Your task to perform on an android device: Show me productivity apps on the Play Store Image 0: 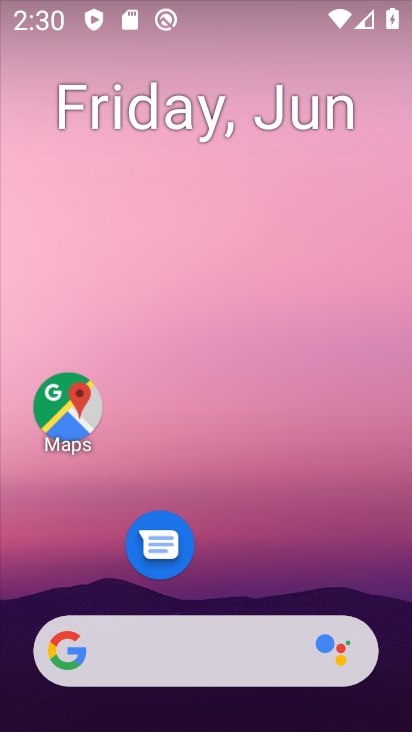
Step 0: drag from (239, 578) to (254, 243)
Your task to perform on an android device: Show me productivity apps on the Play Store Image 1: 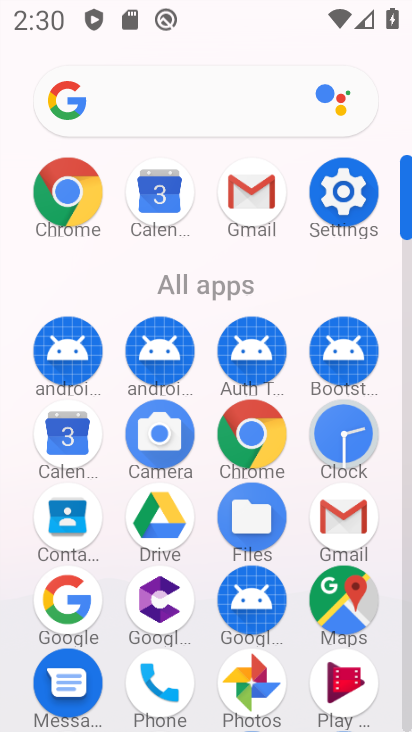
Step 1: drag from (212, 619) to (239, 292)
Your task to perform on an android device: Show me productivity apps on the Play Store Image 2: 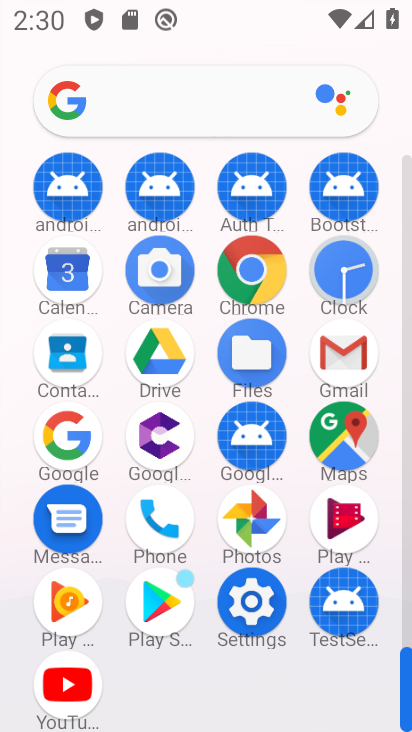
Step 2: click (156, 616)
Your task to perform on an android device: Show me productivity apps on the Play Store Image 3: 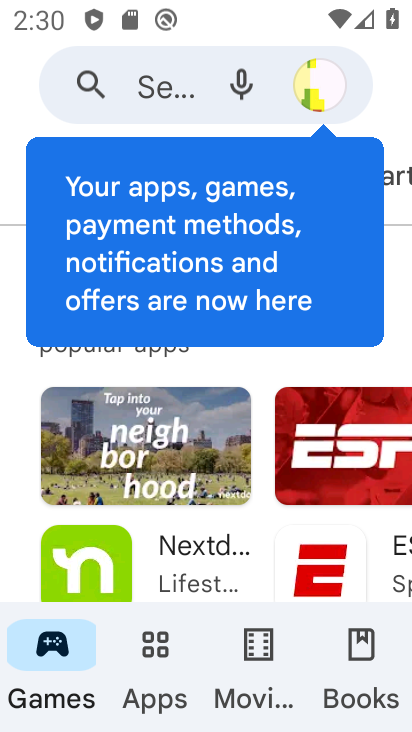
Step 3: click (168, 663)
Your task to perform on an android device: Show me productivity apps on the Play Store Image 4: 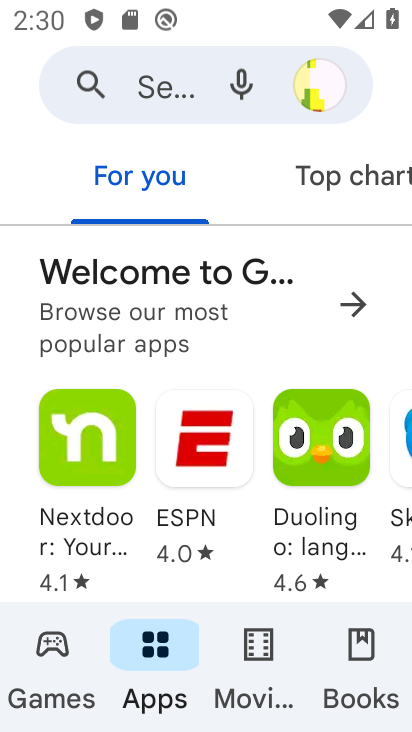
Step 4: drag from (368, 172) to (95, 159)
Your task to perform on an android device: Show me productivity apps on the Play Store Image 5: 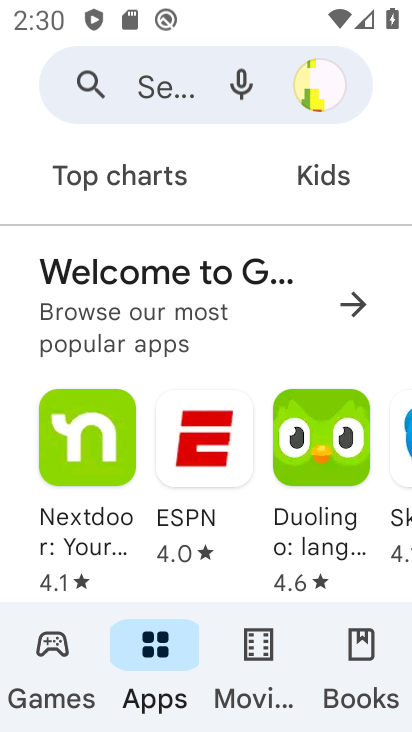
Step 5: drag from (334, 205) to (13, 184)
Your task to perform on an android device: Show me productivity apps on the Play Store Image 6: 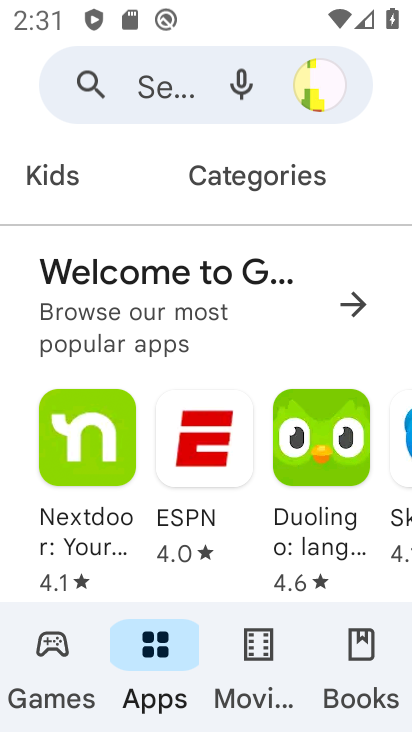
Step 6: click (257, 183)
Your task to perform on an android device: Show me productivity apps on the Play Store Image 7: 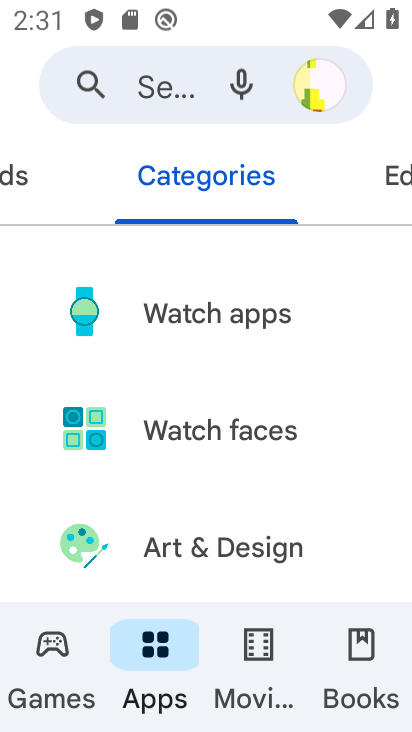
Step 7: drag from (210, 520) to (231, 260)
Your task to perform on an android device: Show me productivity apps on the Play Store Image 8: 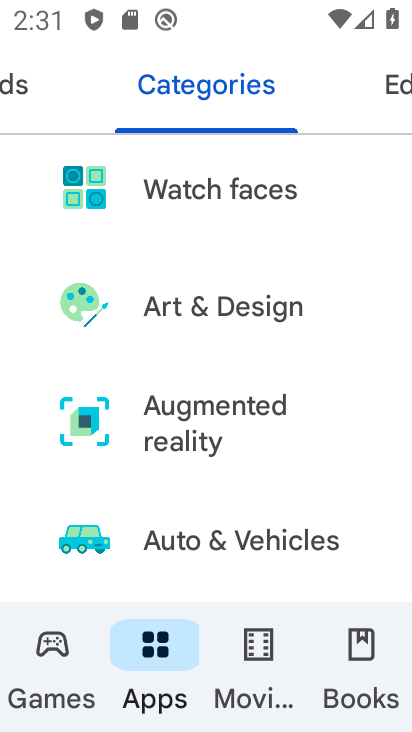
Step 8: drag from (236, 569) to (266, 227)
Your task to perform on an android device: Show me productivity apps on the Play Store Image 9: 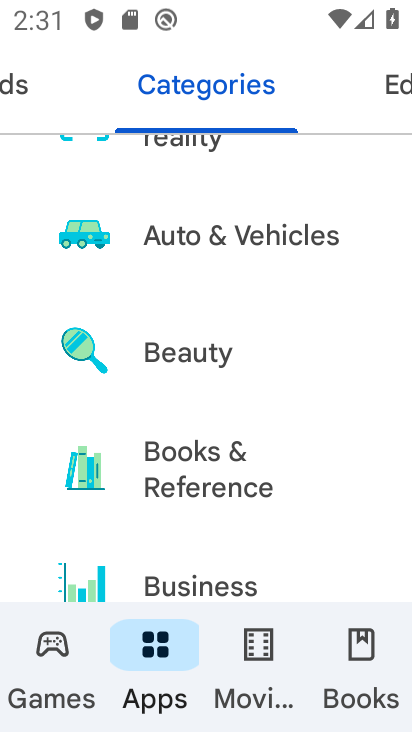
Step 9: drag from (241, 586) to (287, 92)
Your task to perform on an android device: Show me productivity apps on the Play Store Image 10: 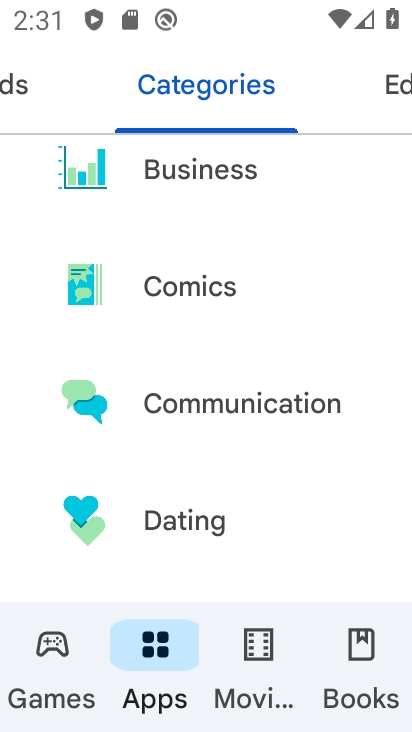
Step 10: drag from (235, 473) to (252, 19)
Your task to perform on an android device: Show me productivity apps on the Play Store Image 11: 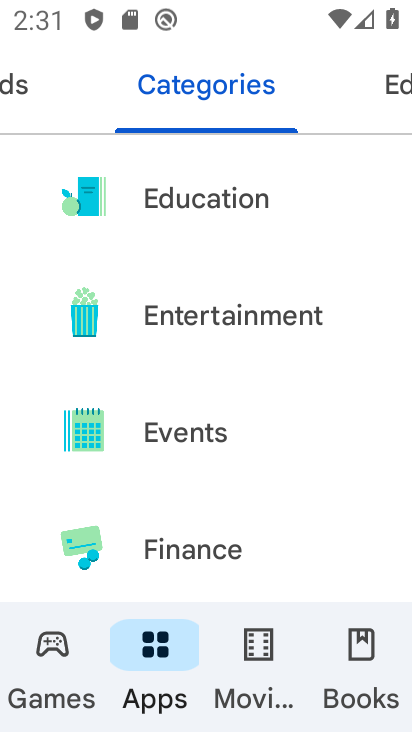
Step 11: drag from (215, 496) to (224, 1)
Your task to perform on an android device: Show me productivity apps on the Play Store Image 12: 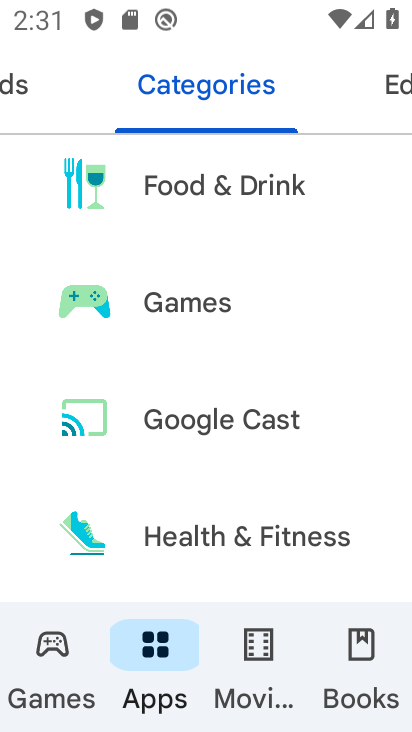
Step 12: drag from (271, 516) to (265, 30)
Your task to perform on an android device: Show me productivity apps on the Play Store Image 13: 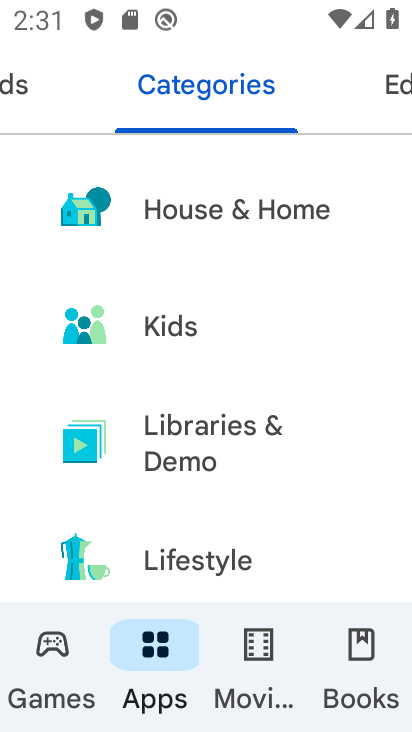
Step 13: drag from (193, 550) to (208, 2)
Your task to perform on an android device: Show me productivity apps on the Play Store Image 14: 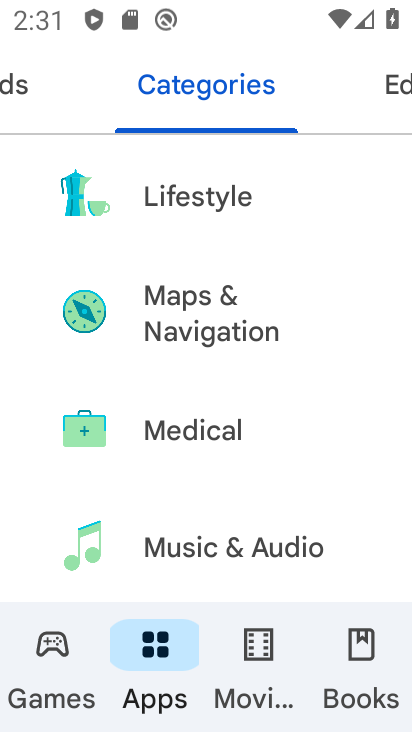
Step 14: drag from (185, 478) to (214, 139)
Your task to perform on an android device: Show me productivity apps on the Play Store Image 15: 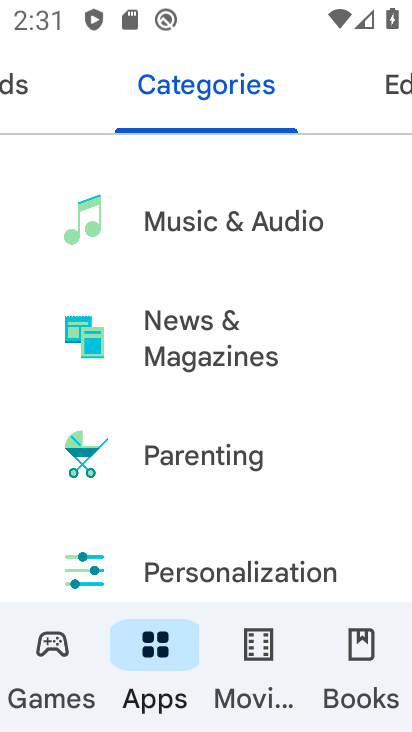
Step 15: drag from (192, 537) to (253, 133)
Your task to perform on an android device: Show me productivity apps on the Play Store Image 16: 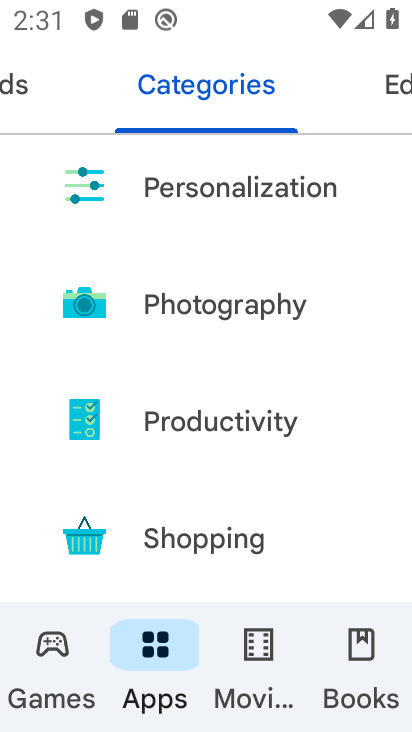
Step 16: click (212, 438)
Your task to perform on an android device: Show me productivity apps on the Play Store Image 17: 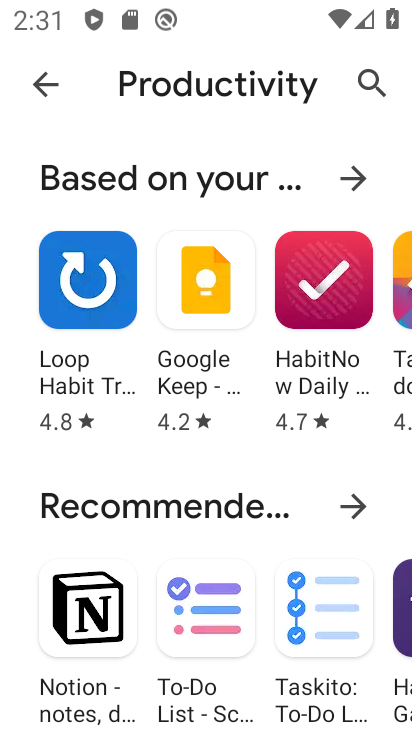
Step 17: task complete